Your task to perform on an android device: Open calendar and show me the second week of next month Image 0: 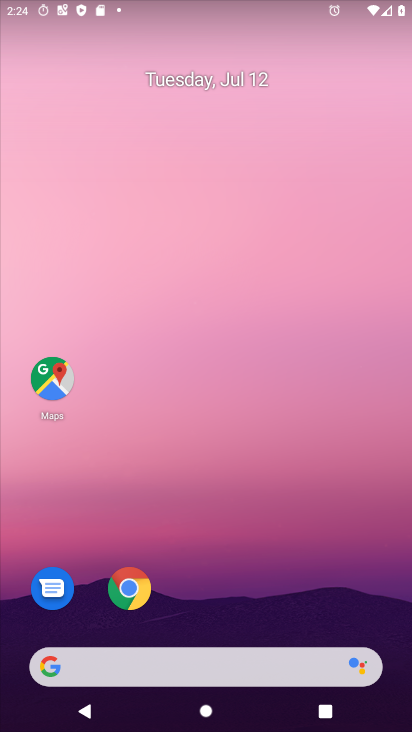
Step 0: drag from (234, 206) to (238, 49)
Your task to perform on an android device: Open calendar and show me the second week of next month Image 1: 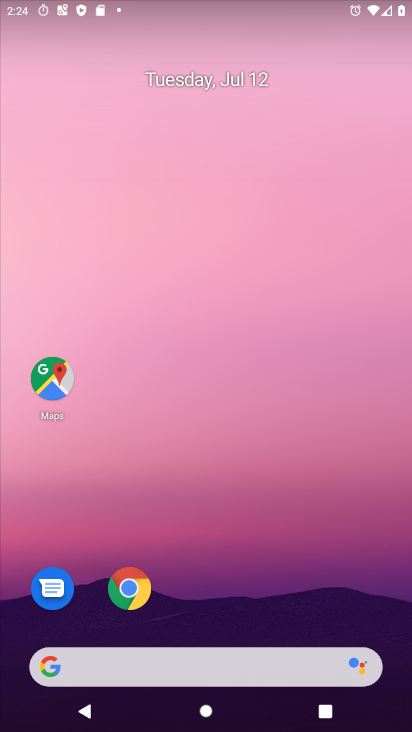
Step 1: drag from (212, 574) to (213, 67)
Your task to perform on an android device: Open calendar and show me the second week of next month Image 2: 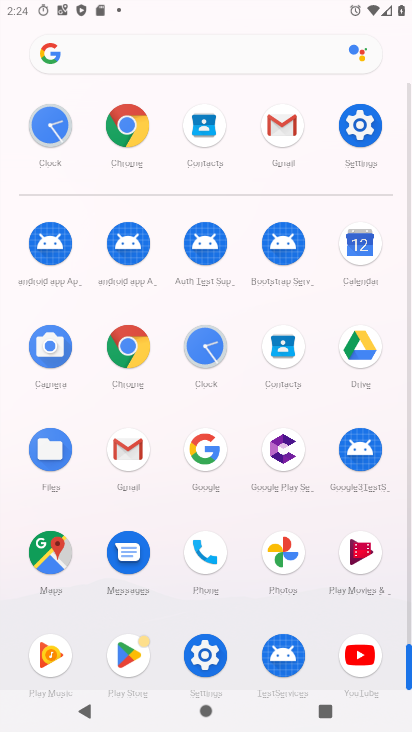
Step 2: click (363, 244)
Your task to perform on an android device: Open calendar and show me the second week of next month Image 3: 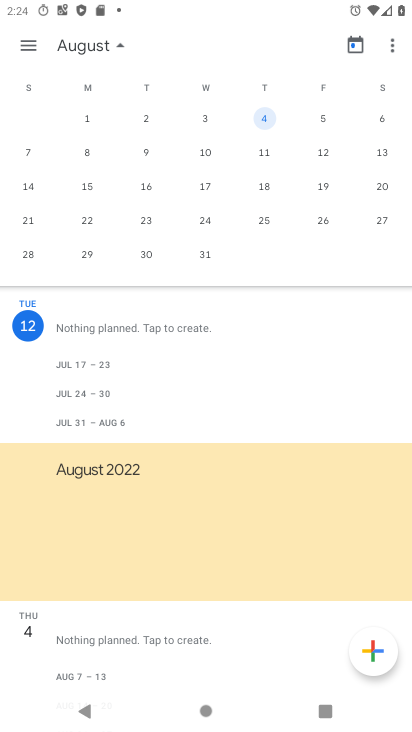
Step 3: click (80, 42)
Your task to perform on an android device: Open calendar and show me the second week of next month Image 4: 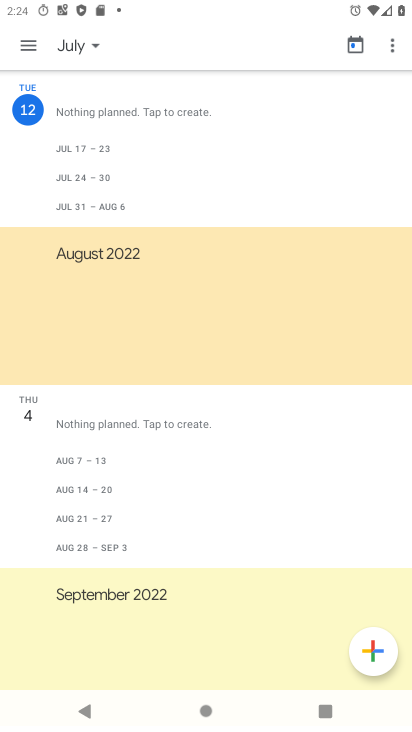
Step 4: click (88, 54)
Your task to perform on an android device: Open calendar and show me the second week of next month Image 5: 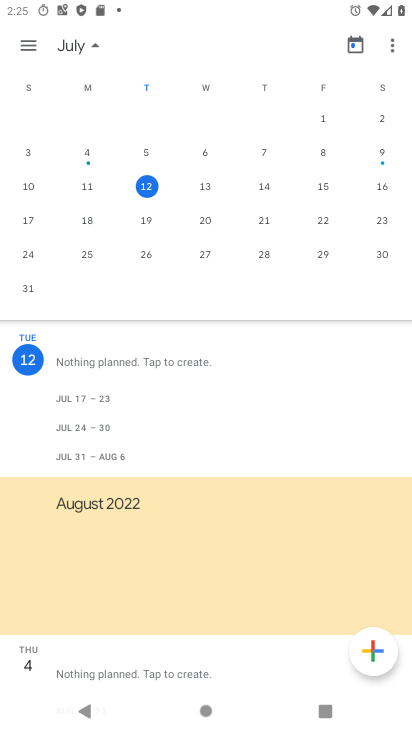
Step 5: drag from (335, 217) to (2, 212)
Your task to perform on an android device: Open calendar and show me the second week of next month Image 6: 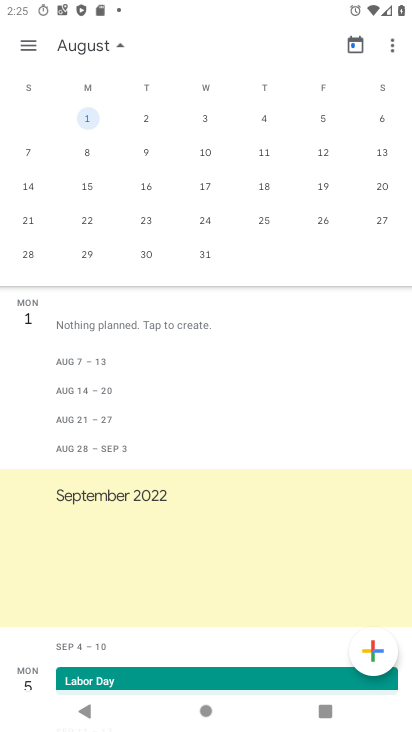
Step 6: click (324, 152)
Your task to perform on an android device: Open calendar and show me the second week of next month Image 7: 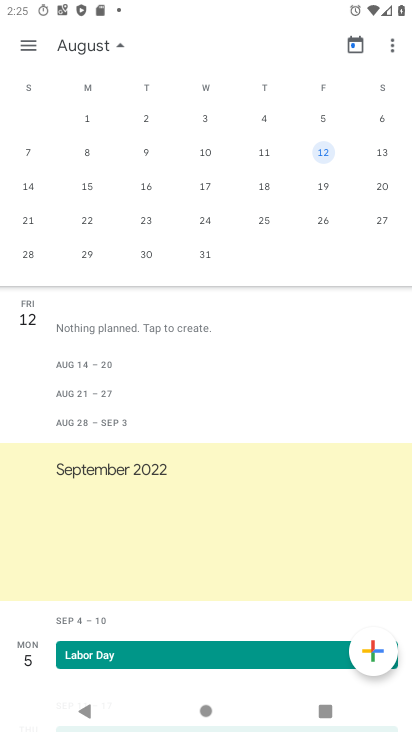
Step 7: click (88, 152)
Your task to perform on an android device: Open calendar and show me the second week of next month Image 8: 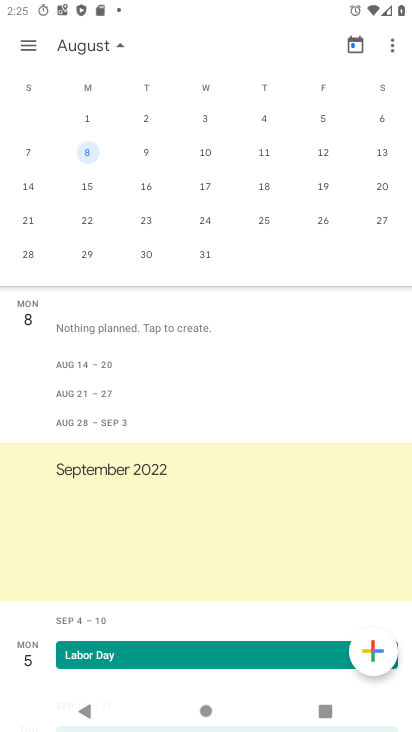
Step 8: task complete